Your task to perform on an android device: Open privacy settings Image 0: 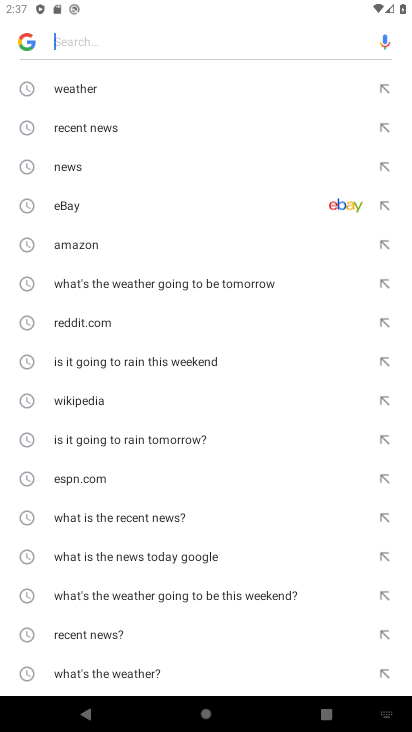
Step 0: press home button
Your task to perform on an android device: Open privacy settings Image 1: 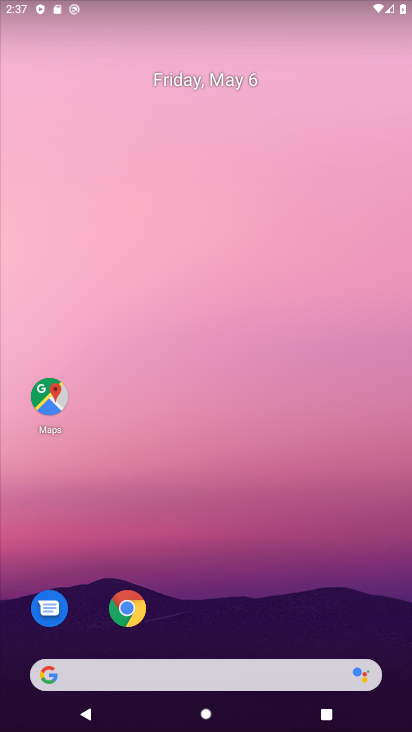
Step 1: drag from (235, 640) to (270, 186)
Your task to perform on an android device: Open privacy settings Image 2: 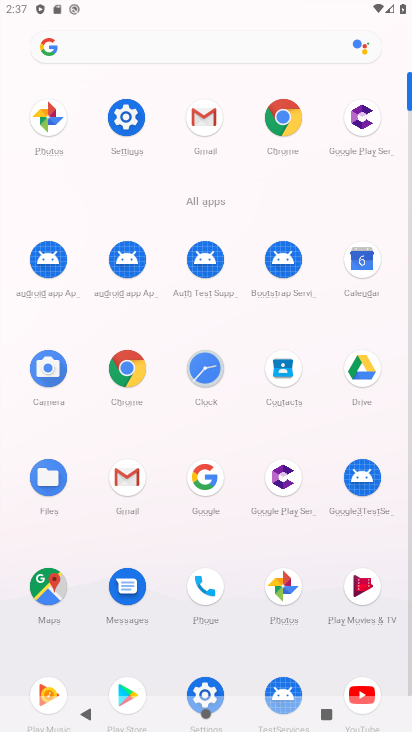
Step 2: drag from (183, 663) to (226, 456)
Your task to perform on an android device: Open privacy settings Image 3: 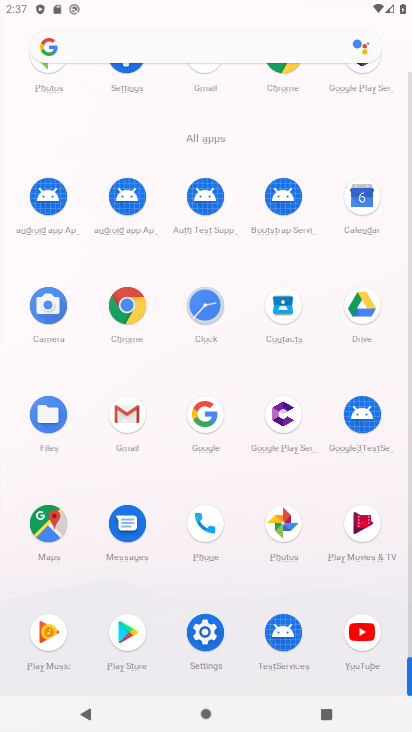
Step 3: click (200, 633)
Your task to perform on an android device: Open privacy settings Image 4: 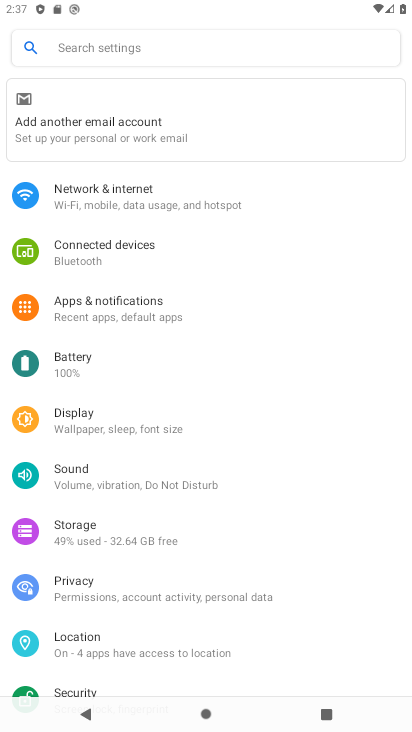
Step 4: click (123, 588)
Your task to perform on an android device: Open privacy settings Image 5: 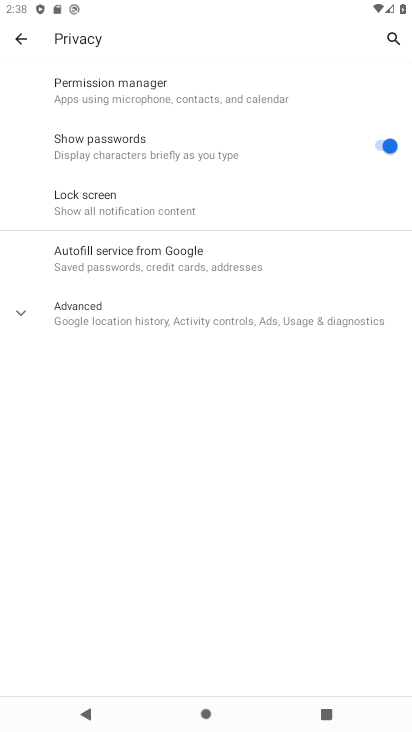
Step 5: task complete